Your task to perform on an android device: toggle airplane mode Image 0: 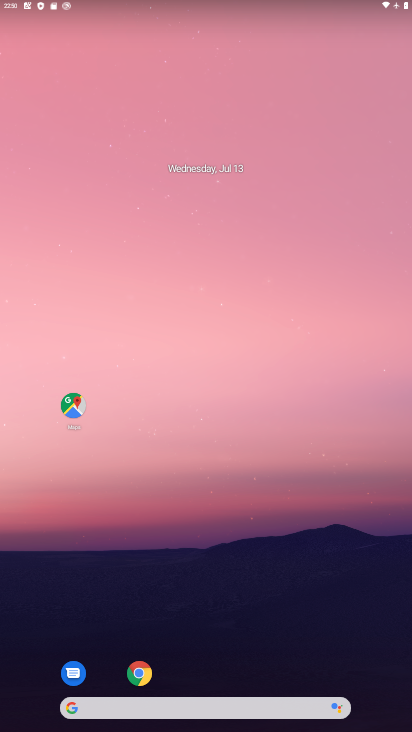
Step 0: drag from (246, 643) to (214, 163)
Your task to perform on an android device: toggle airplane mode Image 1: 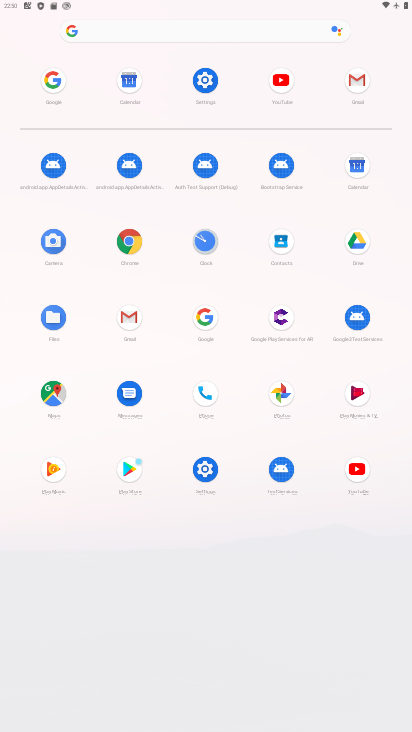
Step 1: click (219, 85)
Your task to perform on an android device: toggle airplane mode Image 2: 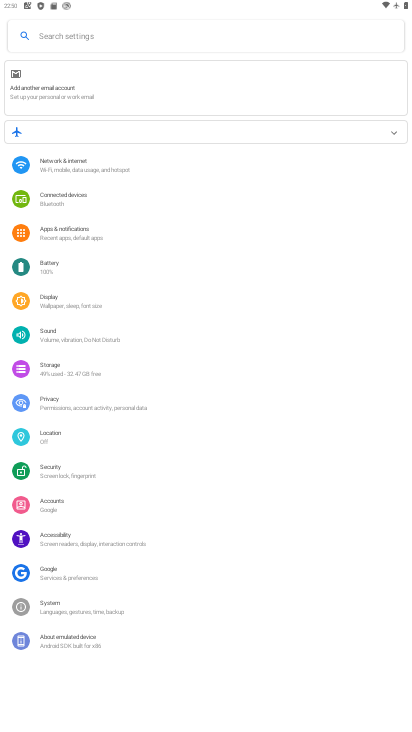
Step 2: click (60, 157)
Your task to perform on an android device: toggle airplane mode Image 3: 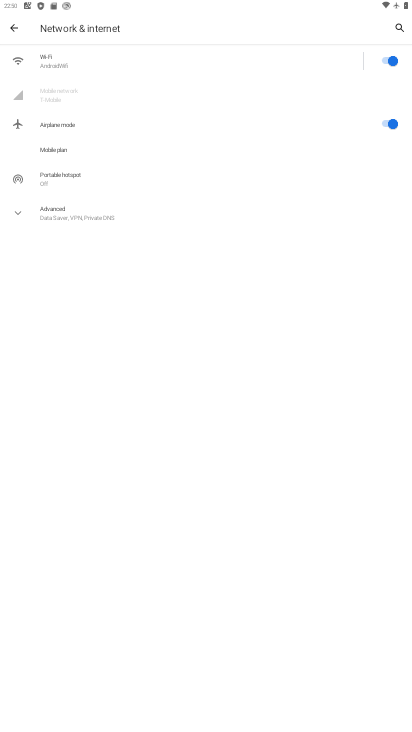
Step 3: click (385, 119)
Your task to perform on an android device: toggle airplane mode Image 4: 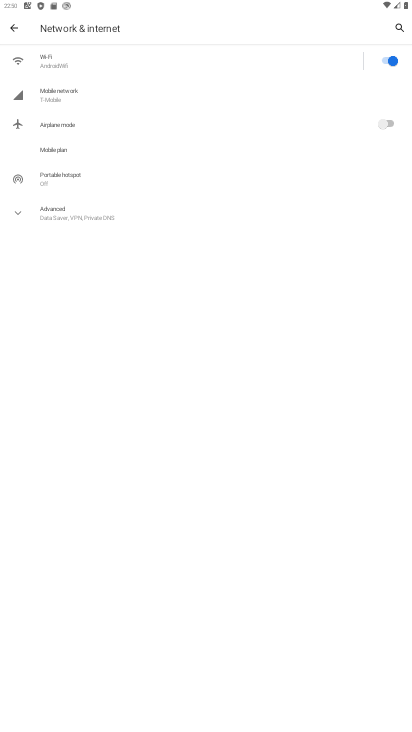
Step 4: task complete